Your task to perform on an android device: set the timer Image 0: 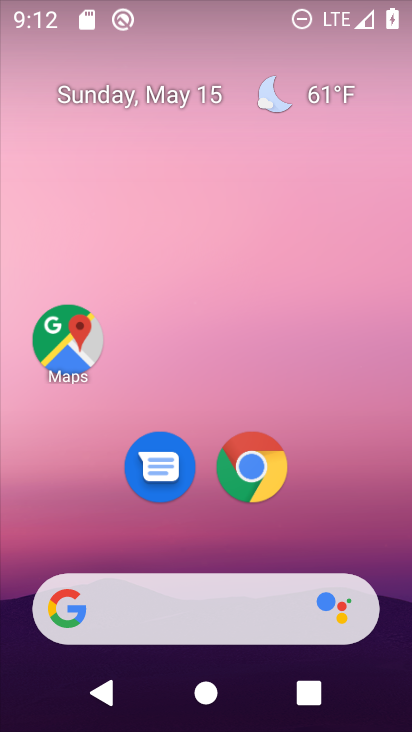
Step 0: drag from (205, 531) to (229, 10)
Your task to perform on an android device: set the timer Image 1: 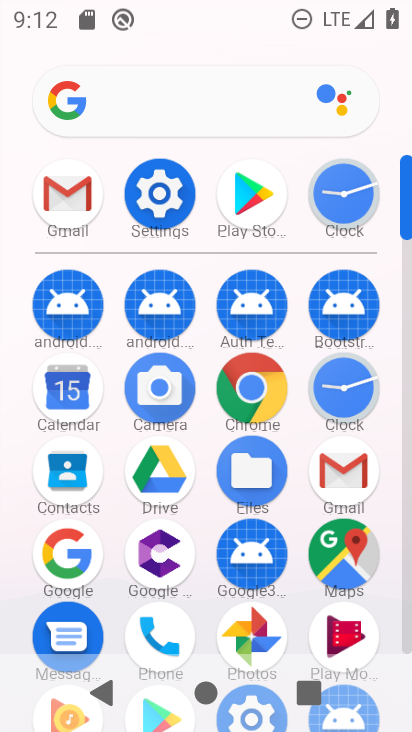
Step 1: click (339, 203)
Your task to perform on an android device: set the timer Image 2: 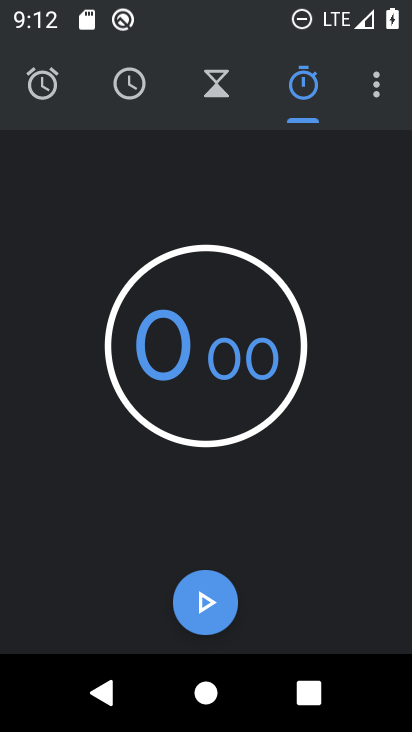
Step 2: click (240, 101)
Your task to perform on an android device: set the timer Image 3: 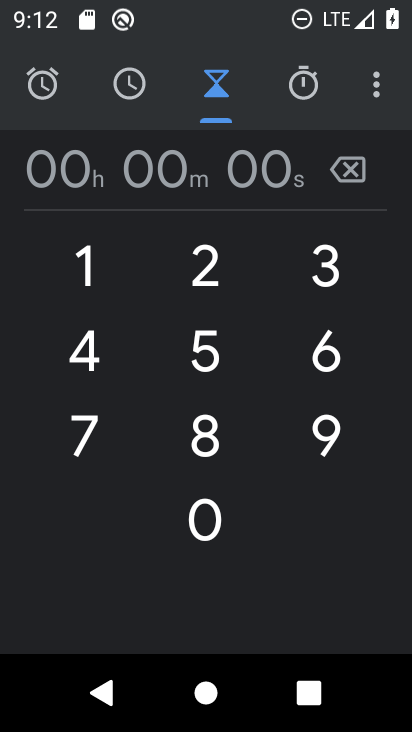
Step 3: click (222, 368)
Your task to perform on an android device: set the timer Image 4: 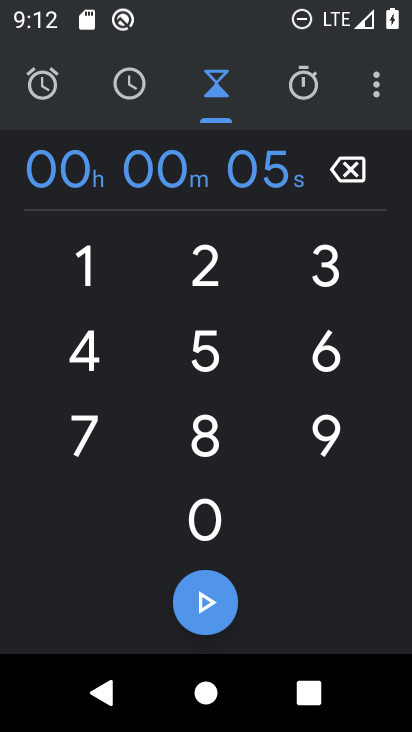
Step 4: click (200, 607)
Your task to perform on an android device: set the timer Image 5: 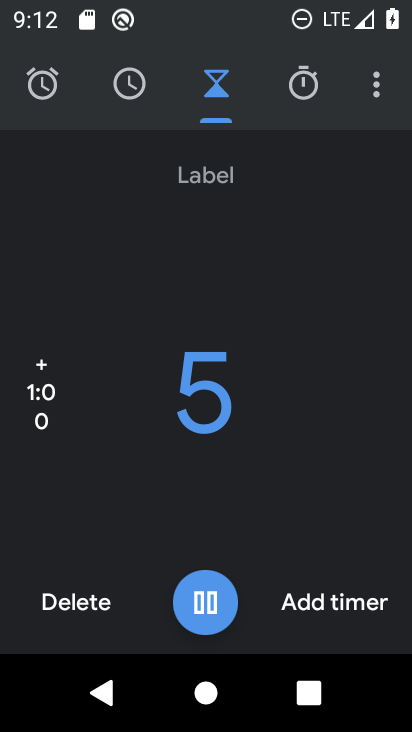
Step 5: task complete